Your task to perform on an android device: read, delete, or share a saved page in the chrome app Image 0: 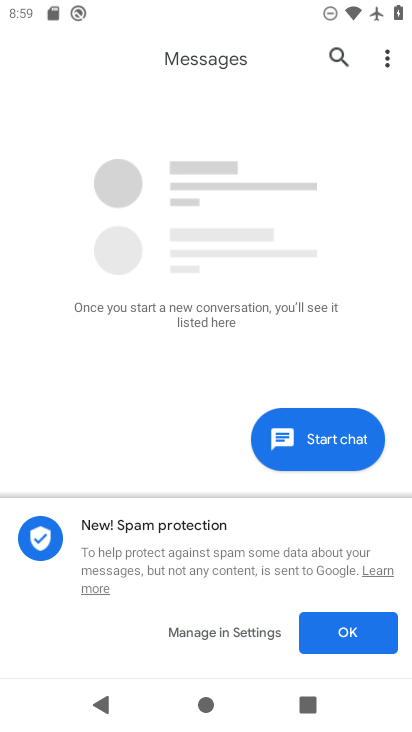
Step 0: press home button
Your task to perform on an android device: read, delete, or share a saved page in the chrome app Image 1: 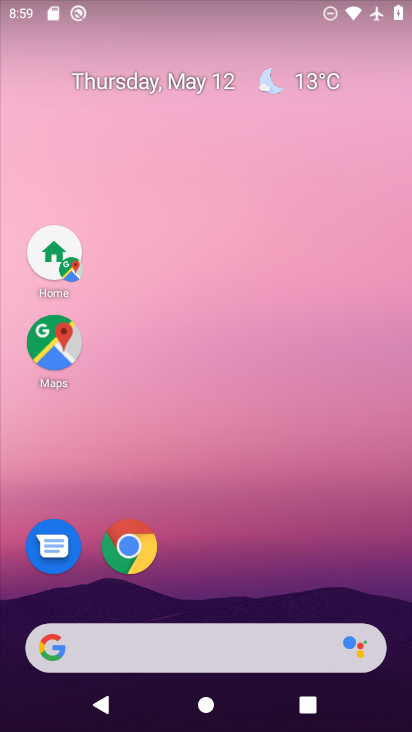
Step 1: click (136, 566)
Your task to perform on an android device: read, delete, or share a saved page in the chrome app Image 2: 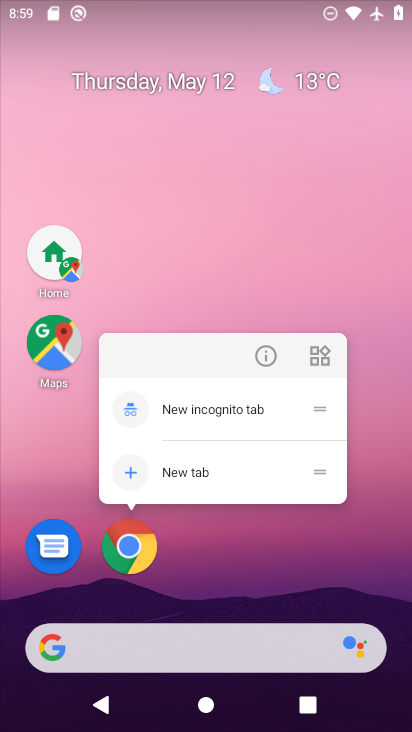
Step 2: click (133, 546)
Your task to perform on an android device: read, delete, or share a saved page in the chrome app Image 3: 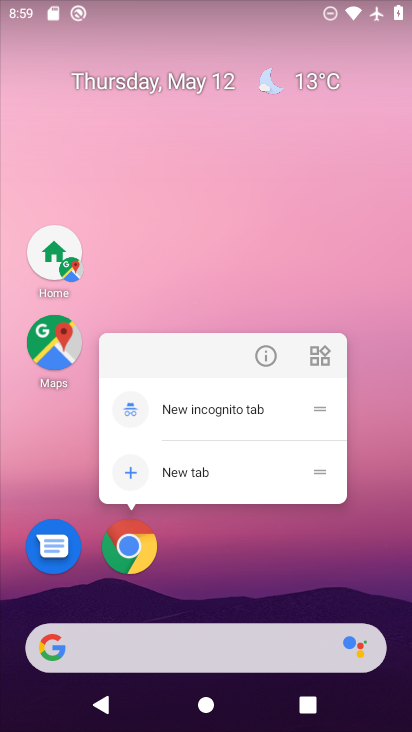
Step 3: click (139, 549)
Your task to perform on an android device: read, delete, or share a saved page in the chrome app Image 4: 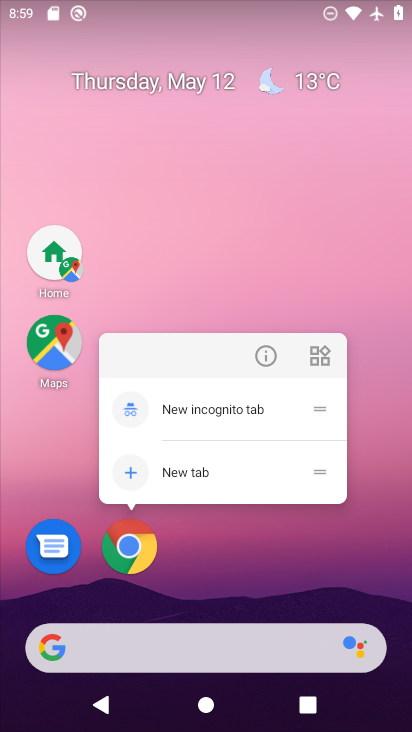
Step 4: click (128, 558)
Your task to perform on an android device: read, delete, or share a saved page in the chrome app Image 5: 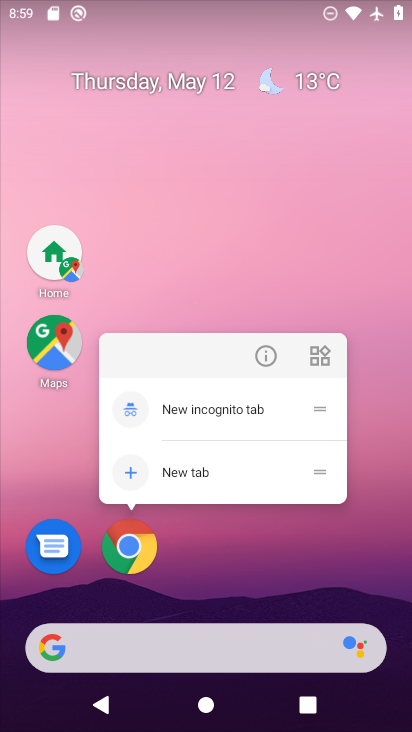
Step 5: click (131, 550)
Your task to perform on an android device: read, delete, or share a saved page in the chrome app Image 6: 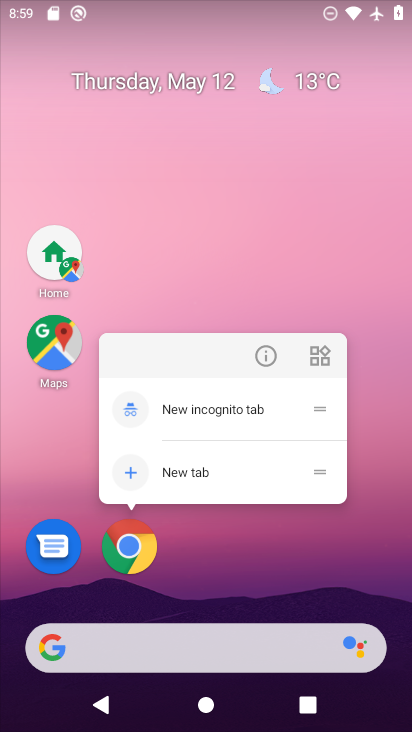
Step 6: click (134, 547)
Your task to perform on an android device: read, delete, or share a saved page in the chrome app Image 7: 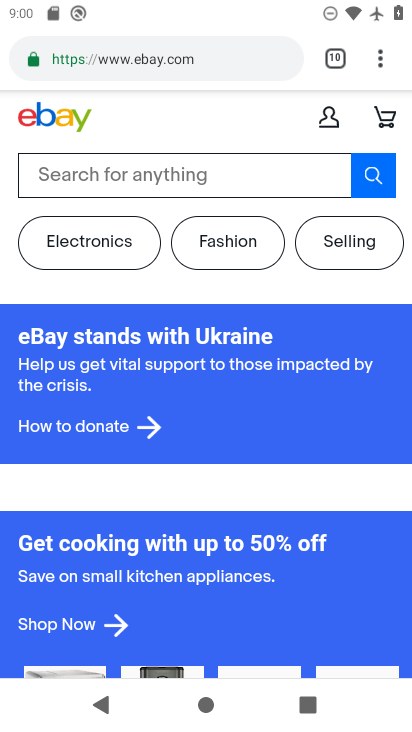
Step 7: drag from (380, 67) to (228, 373)
Your task to perform on an android device: read, delete, or share a saved page in the chrome app Image 8: 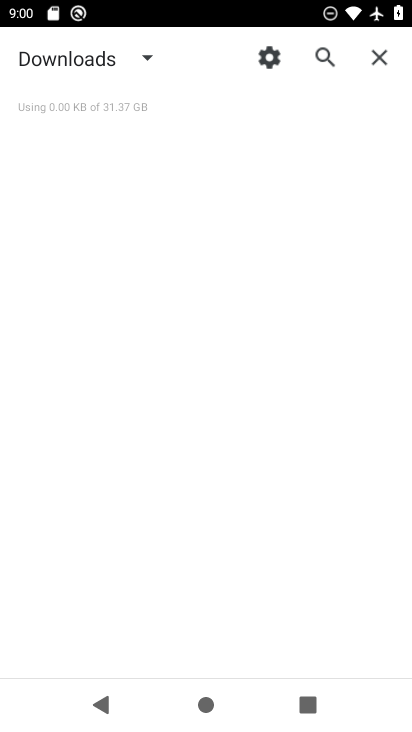
Step 8: click (141, 54)
Your task to perform on an android device: read, delete, or share a saved page in the chrome app Image 9: 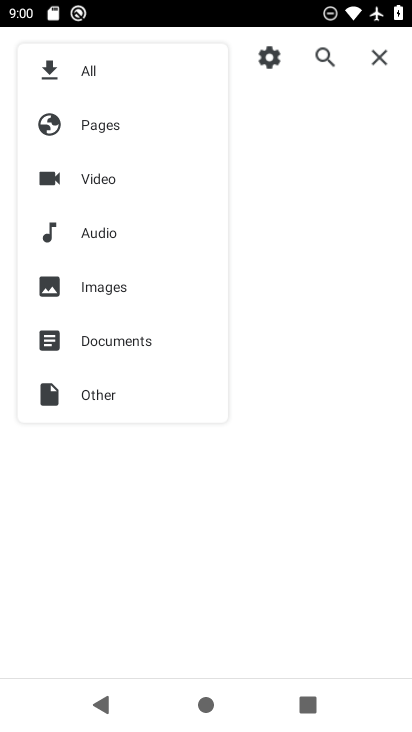
Step 9: click (116, 126)
Your task to perform on an android device: read, delete, or share a saved page in the chrome app Image 10: 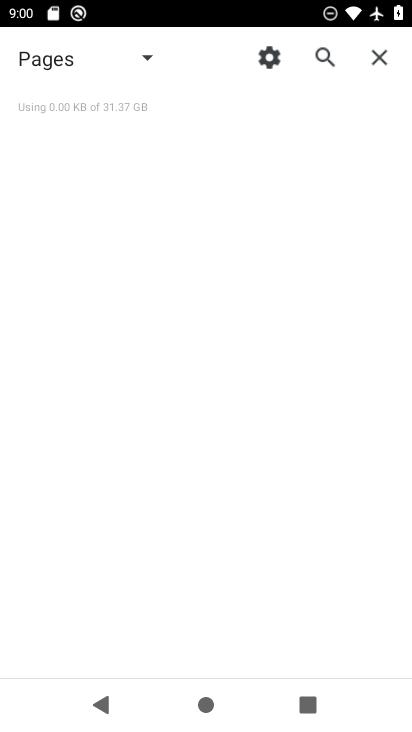
Step 10: task complete